Your task to perform on an android device: visit the assistant section in the google photos Image 0: 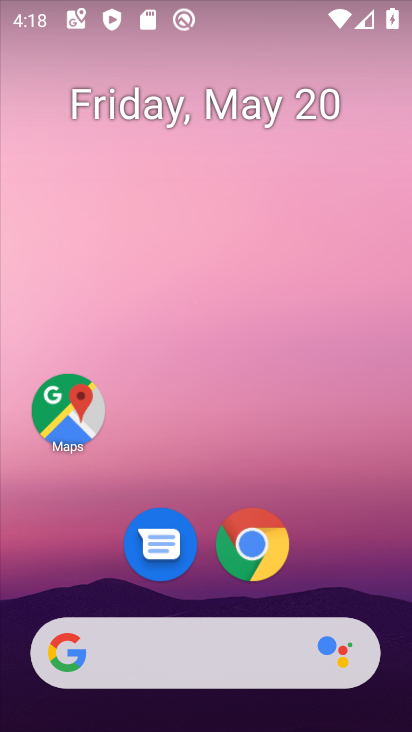
Step 0: drag from (344, 566) to (346, 11)
Your task to perform on an android device: visit the assistant section in the google photos Image 1: 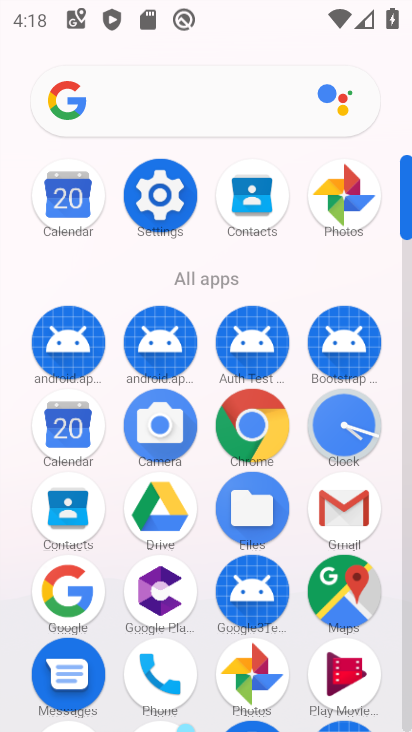
Step 1: click (347, 213)
Your task to perform on an android device: visit the assistant section in the google photos Image 2: 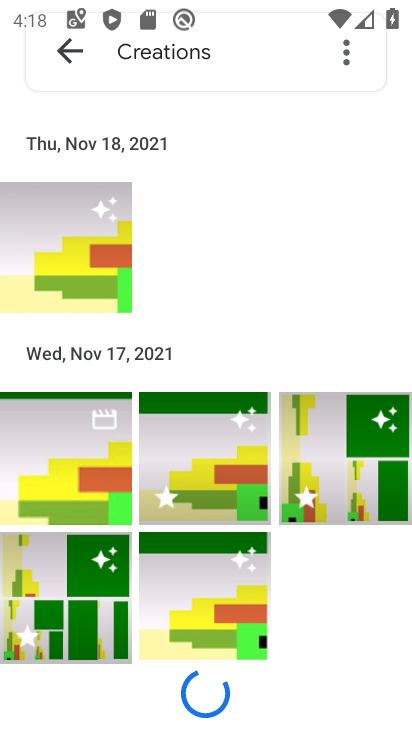
Step 2: click (66, 48)
Your task to perform on an android device: visit the assistant section in the google photos Image 3: 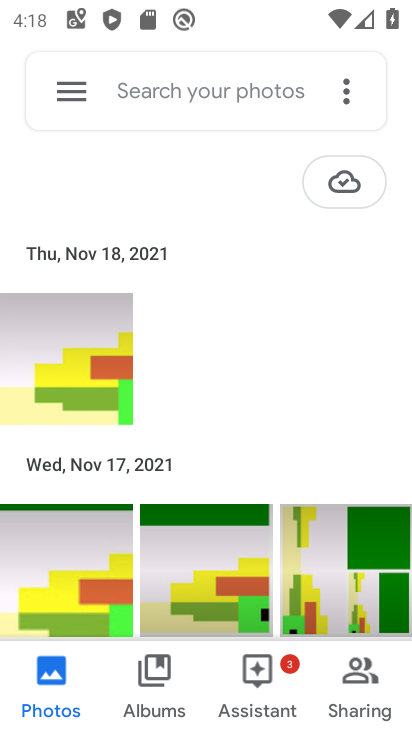
Step 3: click (256, 680)
Your task to perform on an android device: visit the assistant section in the google photos Image 4: 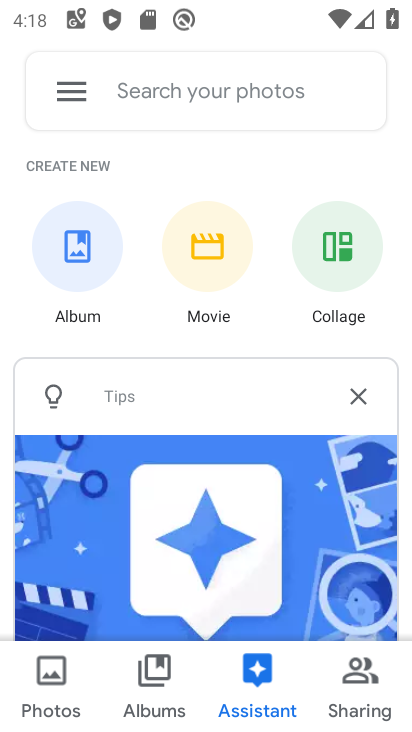
Step 4: task complete